Your task to perform on an android device: all mails in gmail Image 0: 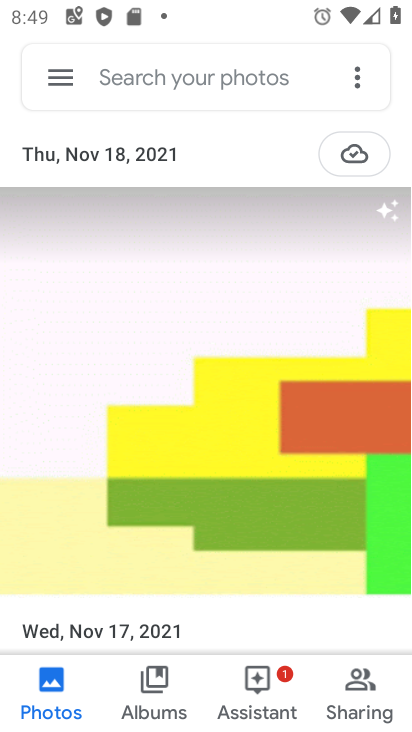
Step 0: press home button
Your task to perform on an android device: all mails in gmail Image 1: 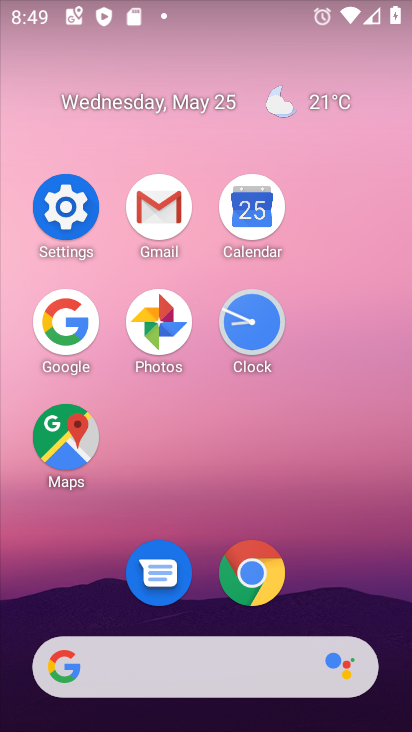
Step 1: click (184, 213)
Your task to perform on an android device: all mails in gmail Image 2: 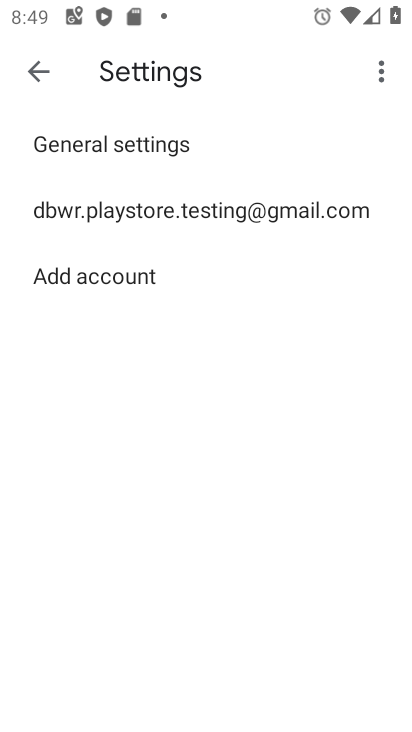
Step 2: click (33, 81)
Your task to perform on an android device: all mails in gmail Image 3: 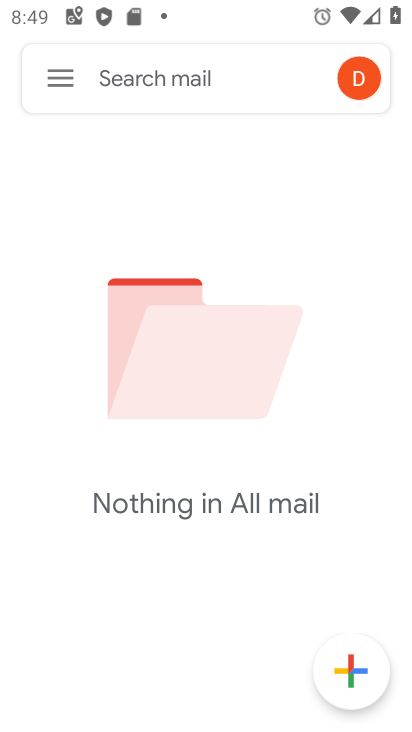
Step 3: task complete